Your task to perform on an android device: check storage Image 0: 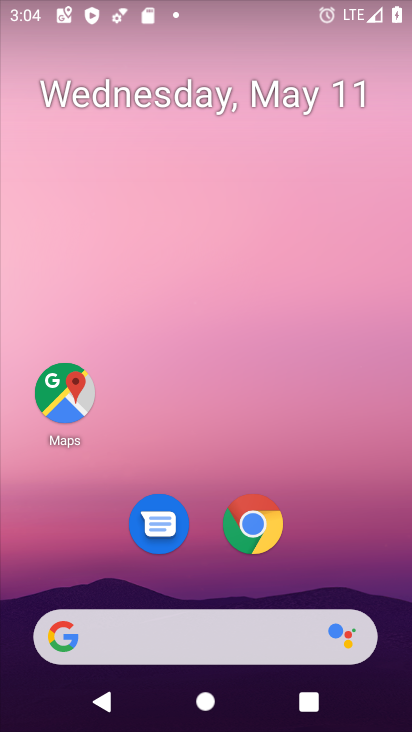
Step 0: drag from (357, 517) to (358, 12)
Your task to perform on an android device: check storage Image 1: 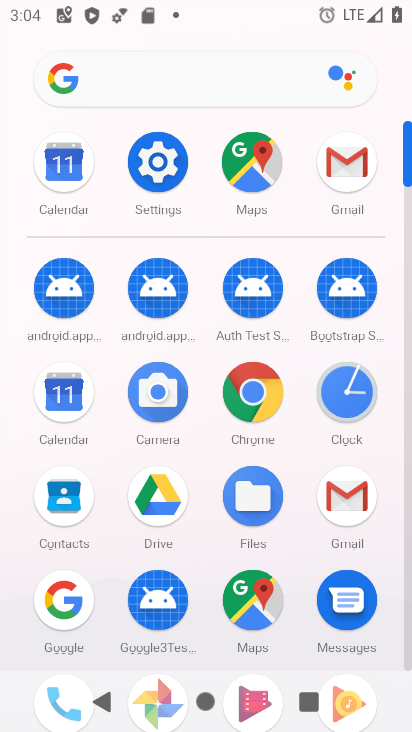
Step 1: click (172, 163)
Your task to perform on an android device: check storage Image 2: 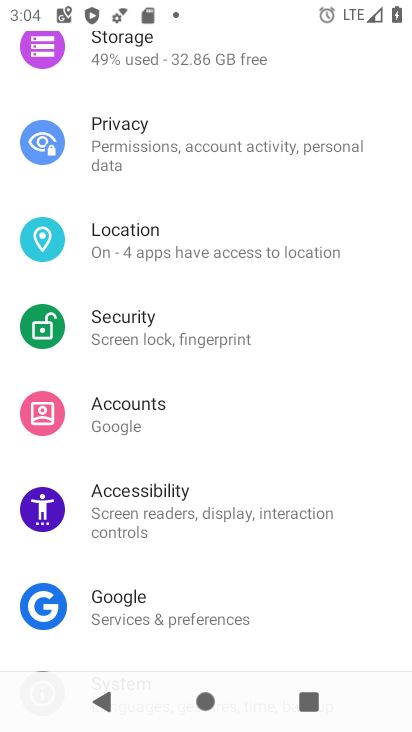
Step 2: drag from (249, 262) to (257, 568)
Your task to perform on an android device: check storage Image 3: 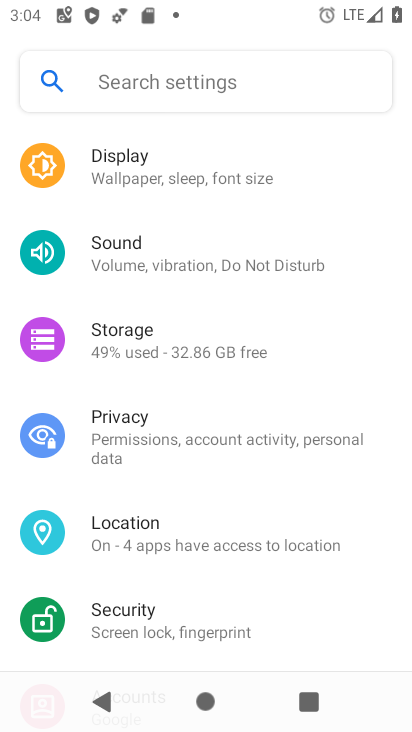
Step 3: click (227, 350)
Your task to perform on an android device: check storage Image 4: 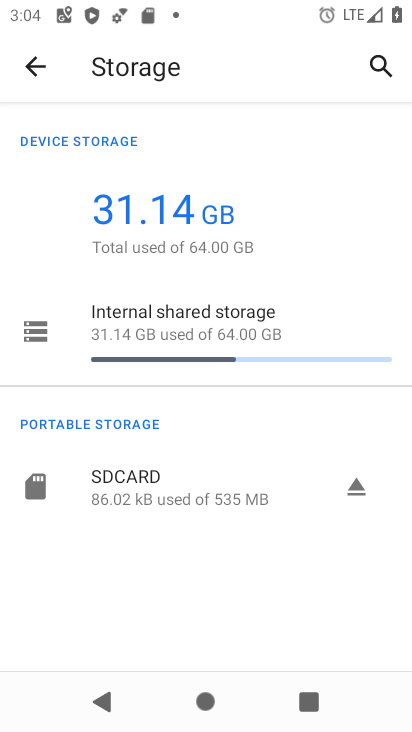
Step 4: task complete